Your task to perform on an android device: View the shopping cart on newegg. Search for "asus zenbook" on newegg, select the first entry, and add it to the cart. Image 0: 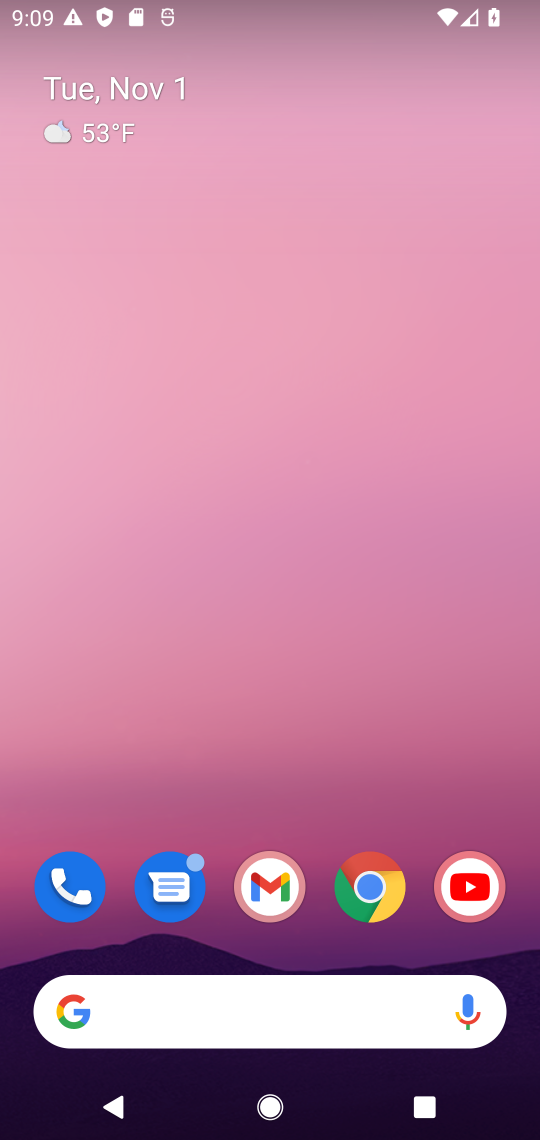
Step 0: drag from (274, 914) to (300, 555)
Your task to perform on an android device: View the shopping cart on newegg. Search for "asus zenbook" on newegg, select the first entry, and add it to the cart. Image 1: 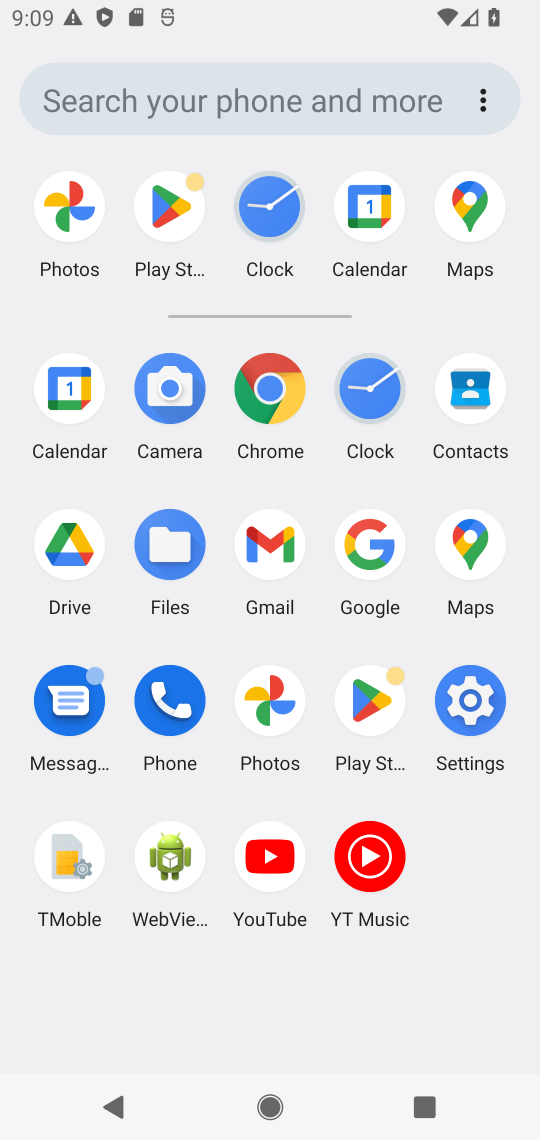
Step 1: click (355, 528)
Your task to perform on an android device: View the shopping cart on newegg. Search for "asus zenbook" on newegg, select the first entry, and add it to the cart. Image 2: 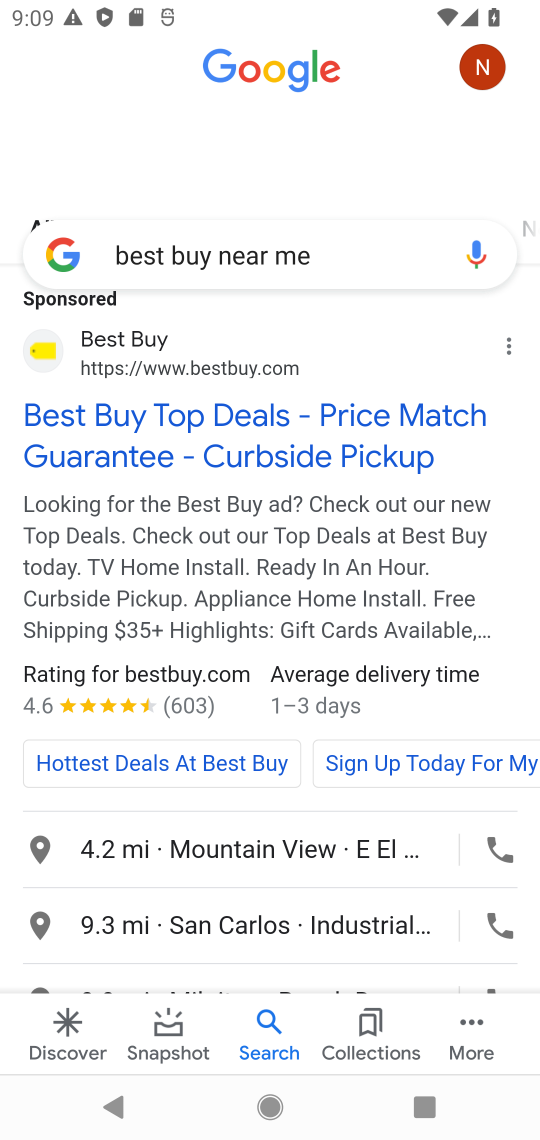
Step 2: click (299, 248)
Your task to perform on an android device: View the shopping cart on newegg. Search for "asus zenbook" on newegg, select the first entry, and add it to the cart. Image 3: 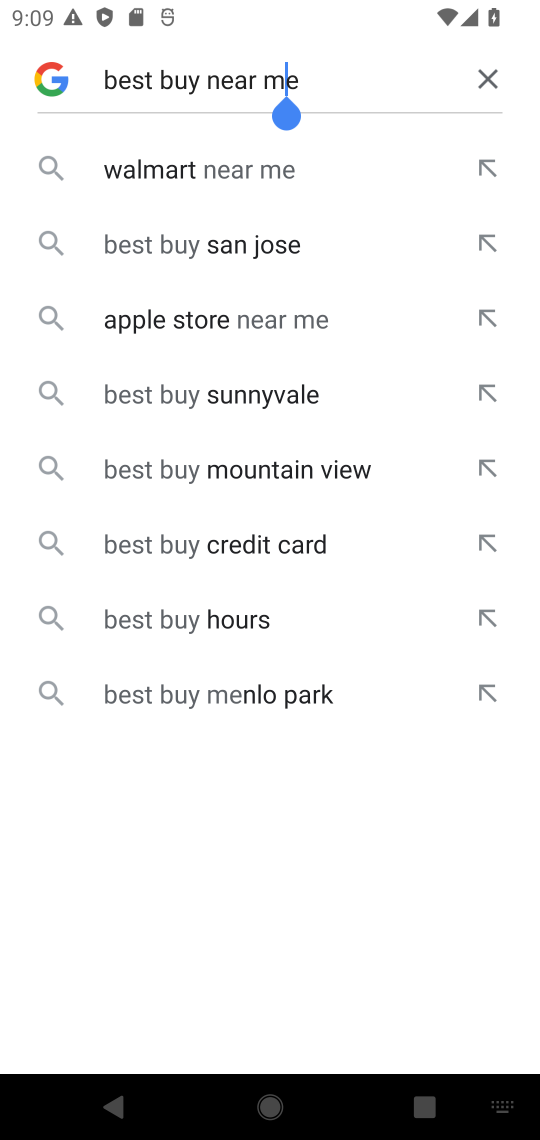
Step 3: click (486, 72)
Your task to perform on an android device: View the shopping cart on newegg. Search for "asus zenbook" on newegg, select the first entry, and add it to the cart. Image 4: 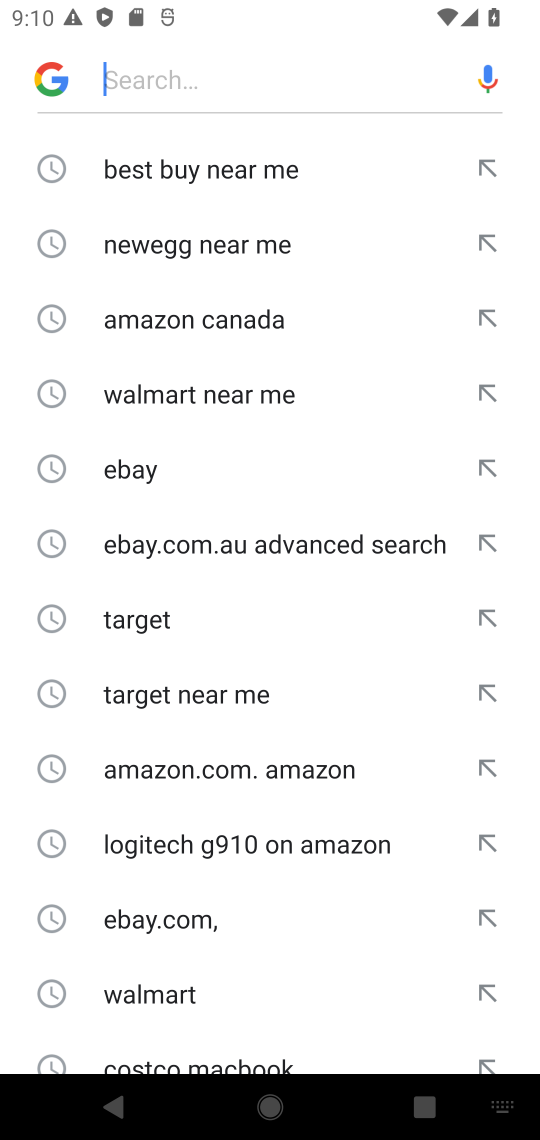
Step 4: click (218, 79)
Your task to perform on an android device: View the shopping cart on newegg. Search for "asus zenbook" on newegg, select the first entry, and add it to the cart. Image 5: 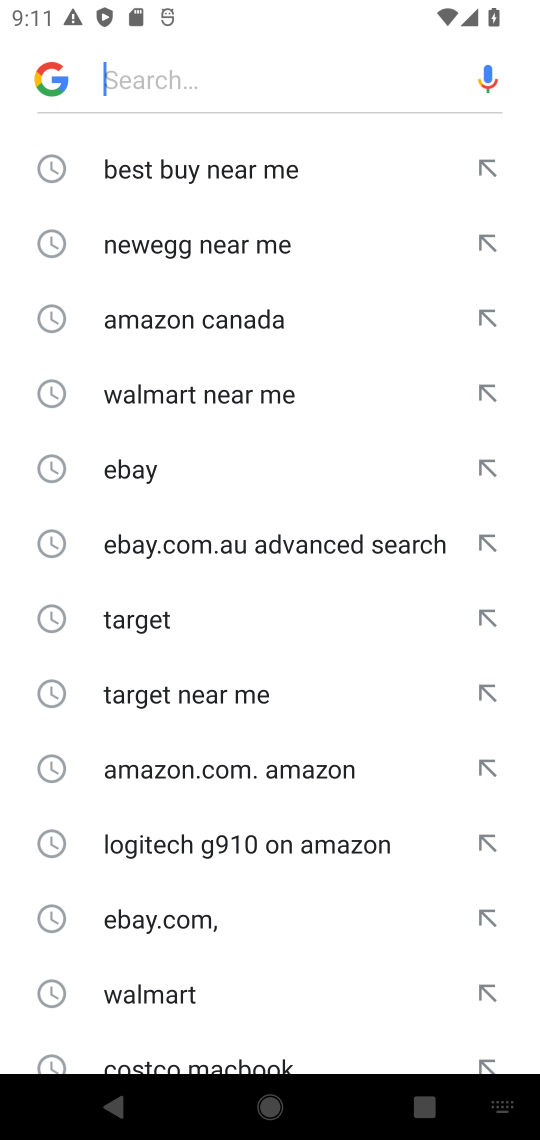
Step 5: type "newegg "
Your task to perform on an android device: View the shopping cart on newegg. Search for "asus zenbook" on newegg, select the first entry, and add it to the cart. Image 6: 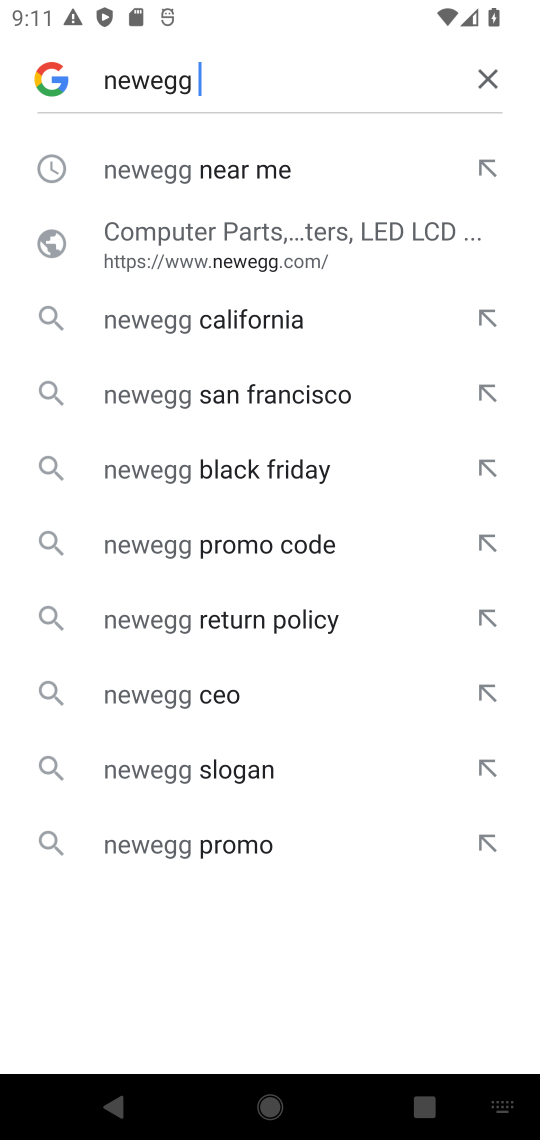
Step 6: click (197, 165)
Your task to perform on an android device: View the shopping cart on newegg. Search for "asus zenbook" on newegg, select the first entry, and add it to the cart. Image 7: 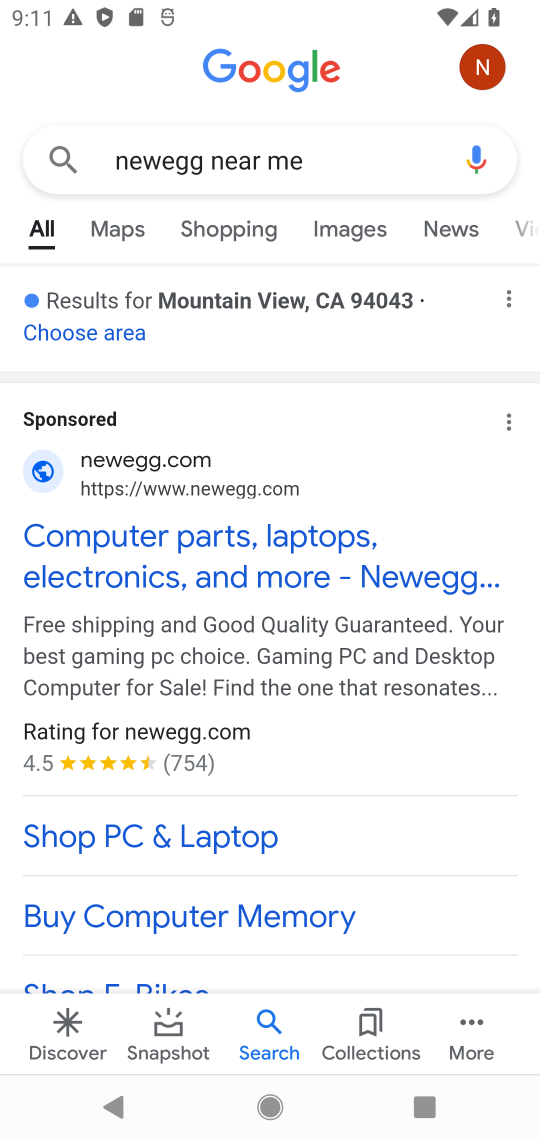
Step 7: drag from (259, 785) to (278, 264)
Your task to perform on an android device: View the shopping cart on newegg. Search for "asus zenbook" on newegg, select the first entry, and add it to the cart. Image 8: 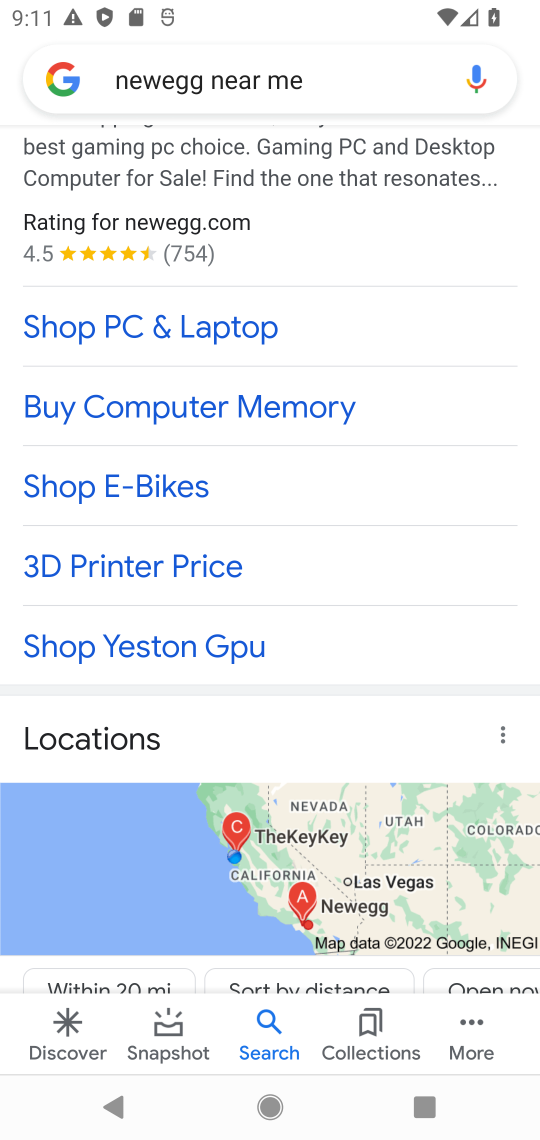
Step 8: drag from (134, 876) to (145, 428)
Your task to perform on an android device: View the shopping cart on newegg. Search for "asus zenbook" on newegg, select the first entry, and add it to the cart. Image 9: 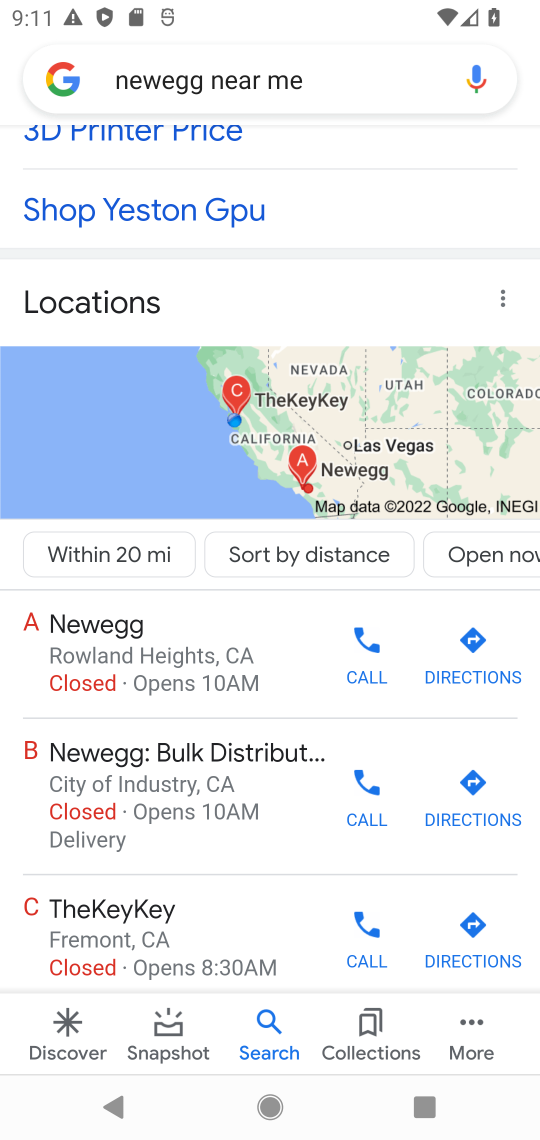
Step 9: drag from (161, 972) to (213, 355)
Your task to perform on an android device: View the shopping cart on newegg. Search for "asus zenbook" on newegg, select the first entry, and add it to the cart. Image 10: 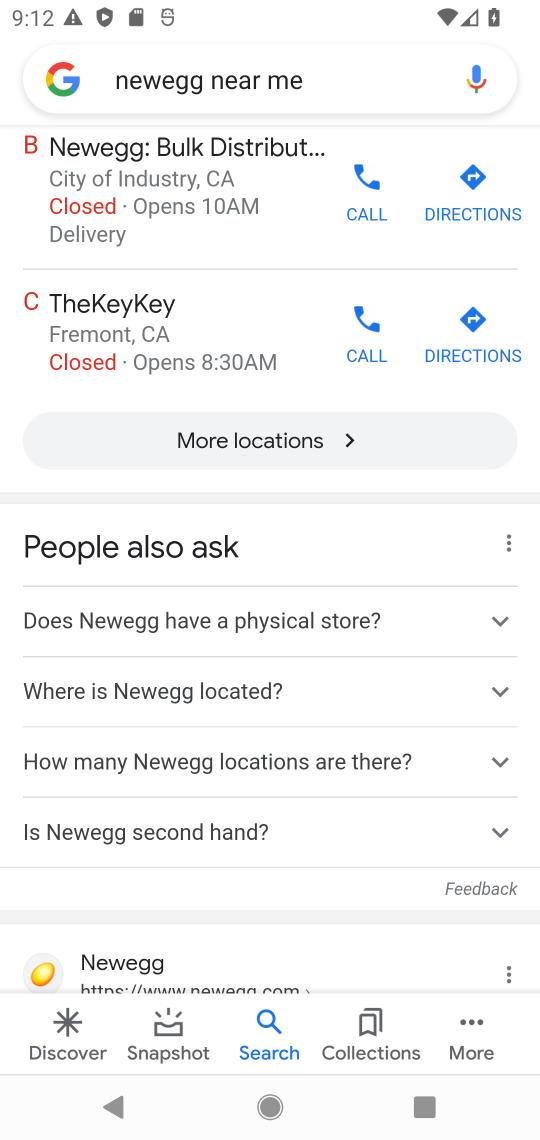
Step 10: drag from (254, 931) to (267, 431)
Your task to perform on an android device: View the shopping cart on newegg. Search for "asus zenbook" on newegg, select the first entry, and add it to the cart. Image 11: 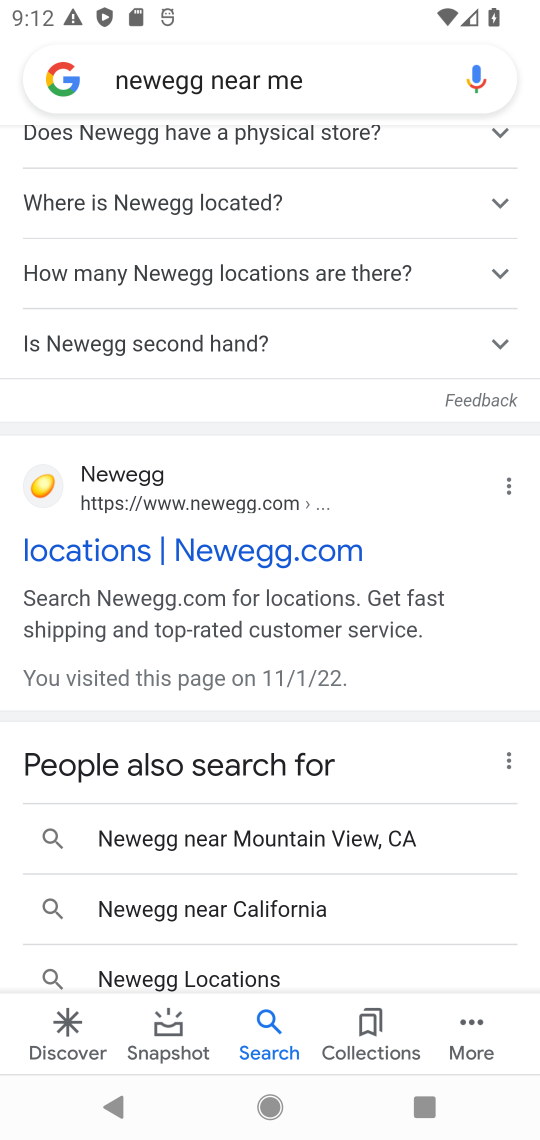
Step 11: click (31, 479)
Your task to perform on an android device: View the shopping cart on newegg. Search for "asus zenbook" on newegg, select the first entry, and add it to the cart. Image 12: 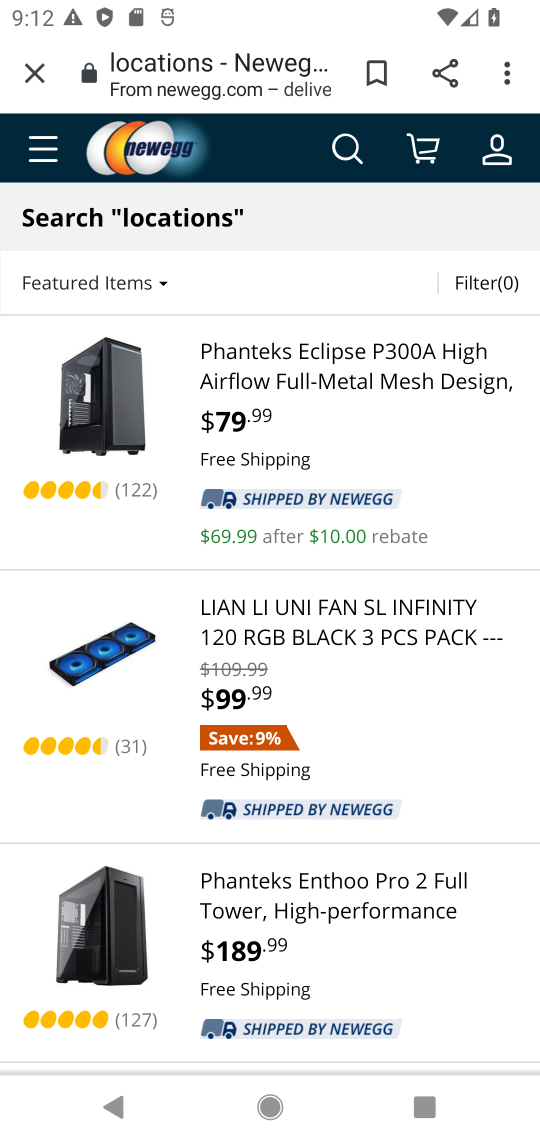
Step 12: click (354, 152)
Your task to perform on an android device: View the shopping cart on newegg. Search for "asus zenbook" on newegg, select the first entry, and add it to the cart. Image 13: 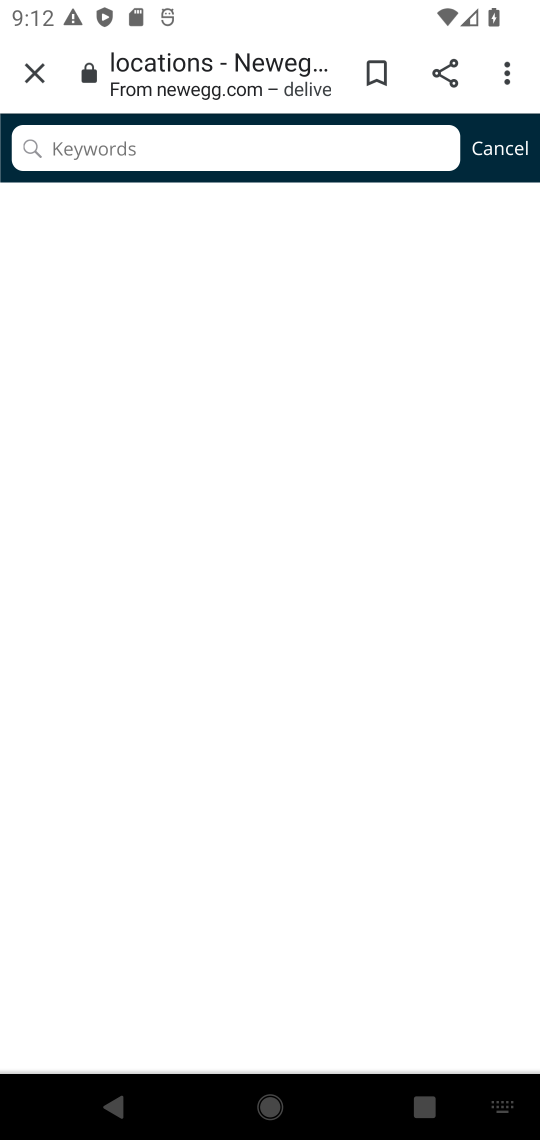
Step 13: click (294, 153)
Your task to perform on an android device: View the shopping cart on newegg. Search for "asus zenbook" on newegg, select the first entry, and add it to the cart. Image 14: 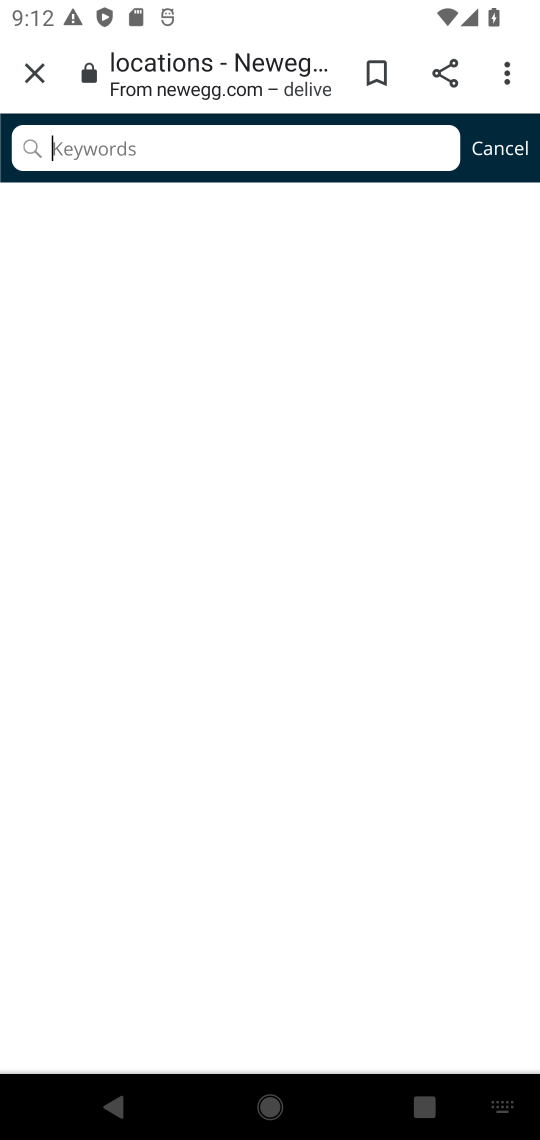
Step 14: type "asus zenbook"
Your task to perform on an android device: View the shopping cart on newegg. Search for "asus zenbook" on newegg, select the first entry, and add it to the cart. Image 15: 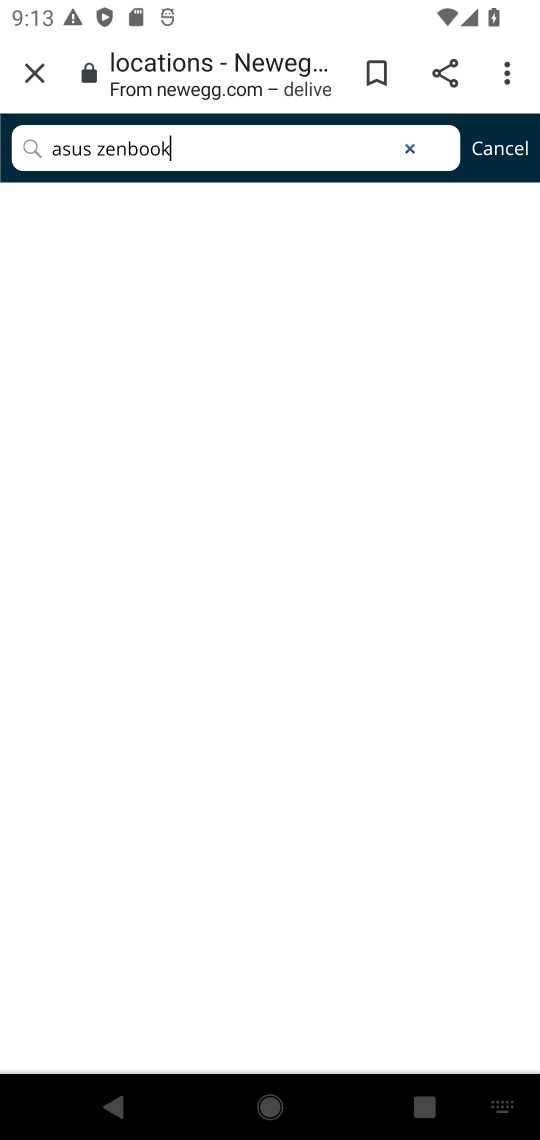
Step 15: task complete